Your task to perform on an android device: Open privacy settings Image 0: 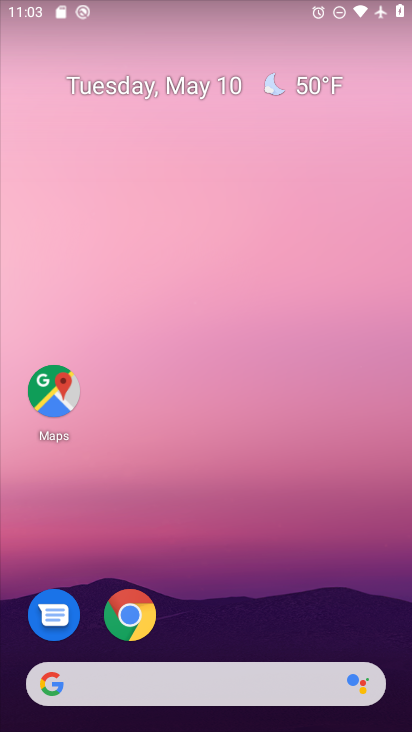
Step 0: drag from (390, 636) to (277, 277)
Your task to perform on an android device: Open privacy settings Image 1: 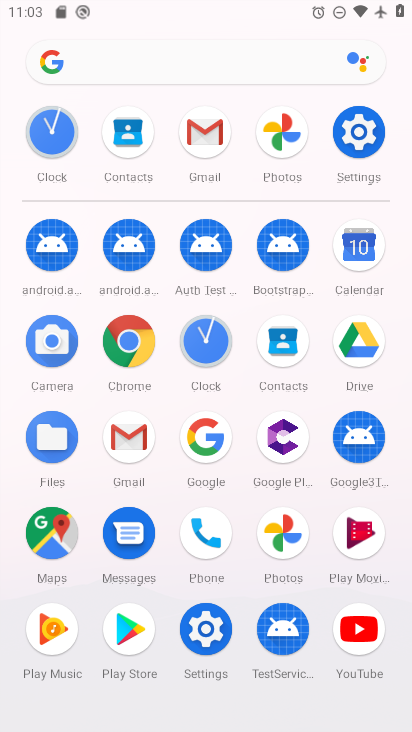
Step 1: click (200, 630)
Your task to perform on an android device: Open privacy settings Image 2: 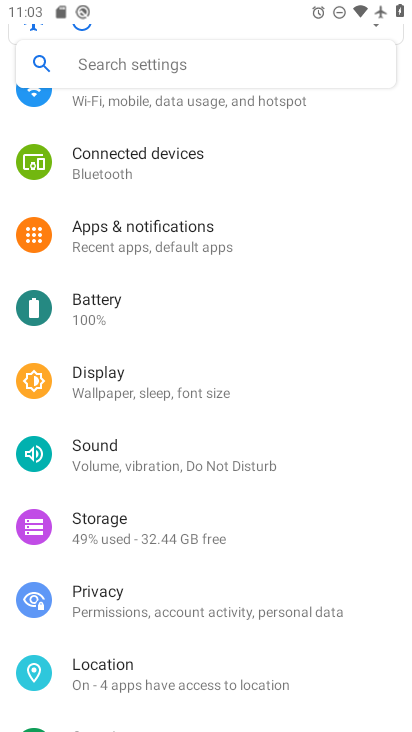
Step 2: click (110, 589)
Your task to perform on an android device: Open privacy settings Image 3: 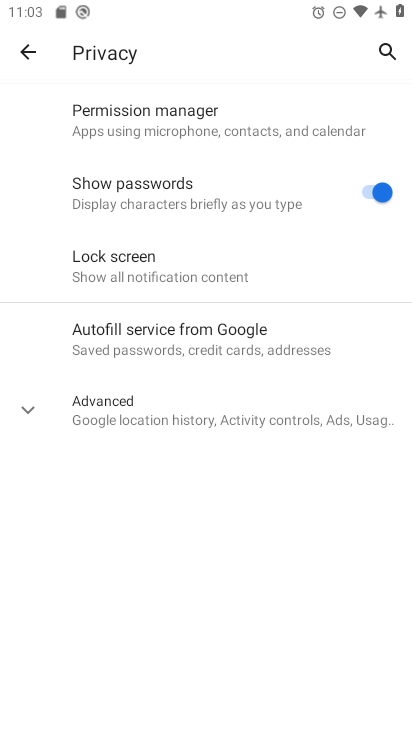
Step 3: click (36, 406)
Your task to perform on an android device: Open privacy settings Image 4: 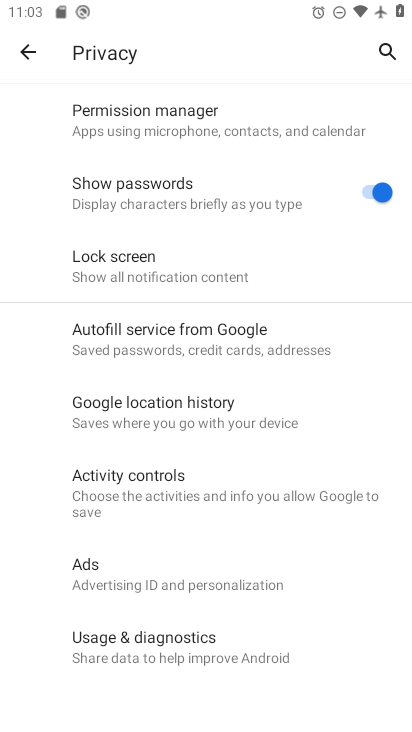
Step 4: task complete